Your task to perform on an android device: change the clock style Image 0: 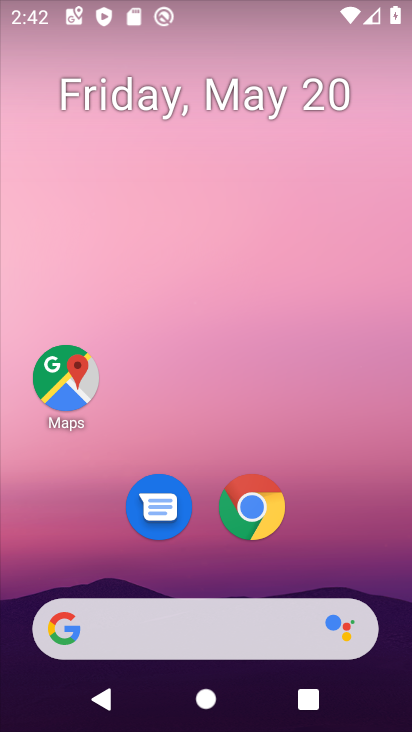
Step 0: drag from (231, 724) to (230, 151)
Your task to perform on an android device: change the clock style Image 1: 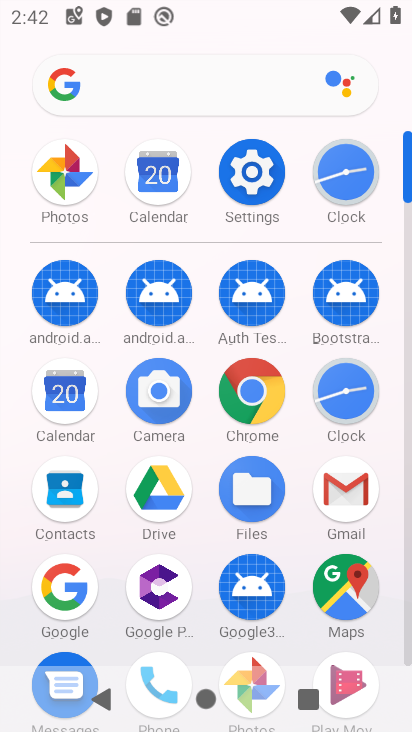
Step 1: click (338, 387)
Your task to perform on an android device: change the clock style Image 2: 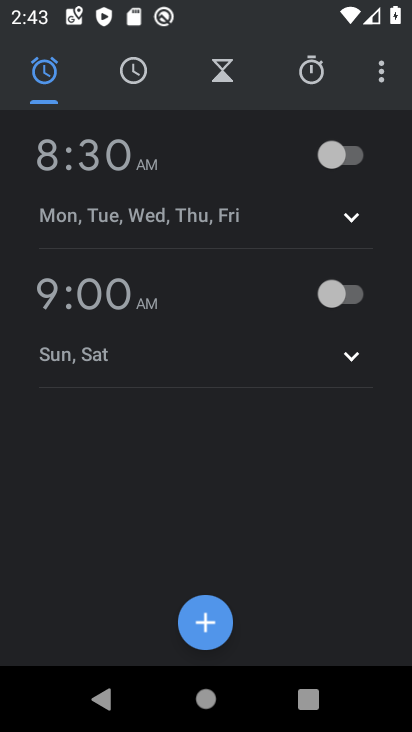
Step 2: click (385, 72)
Your task to perform on an android device: change the clock style Image 3: 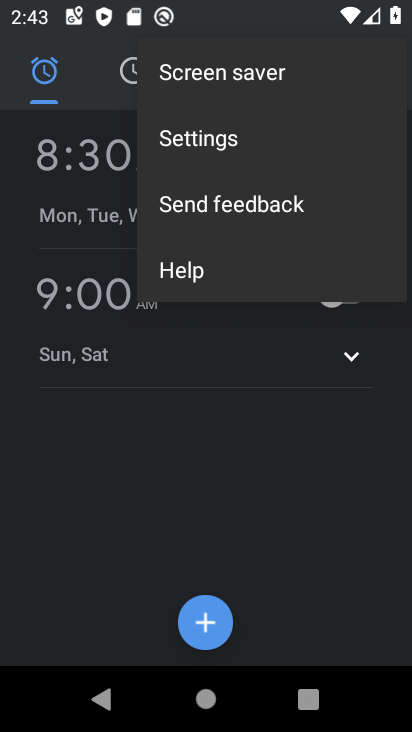
Step 3: click (185, 133)
Your task to perform on an android device: change the clock style Image 4: 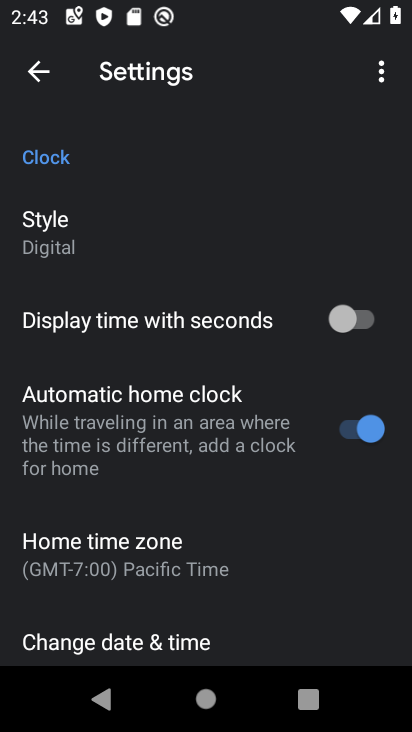
Step 4: click (52, 235)
Your task to perform on an android device: change the clock style Image 5: 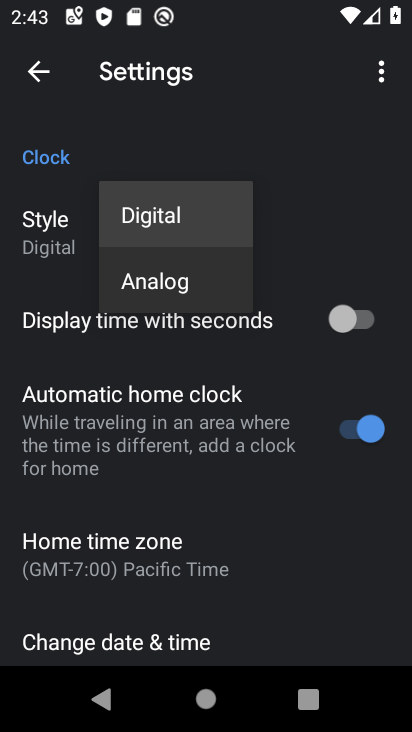
Step 5: click (137, 277)
Your task to perform on an android device: change the clock style Image 6: 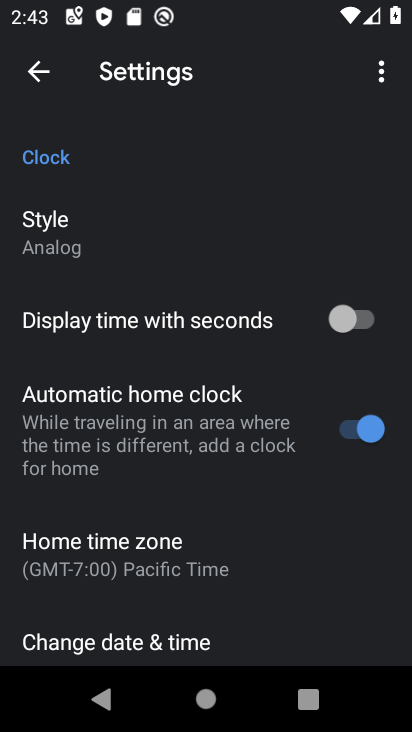
Step 6: task complete